Your task to perform on an android device: Open the calendar Image 0: 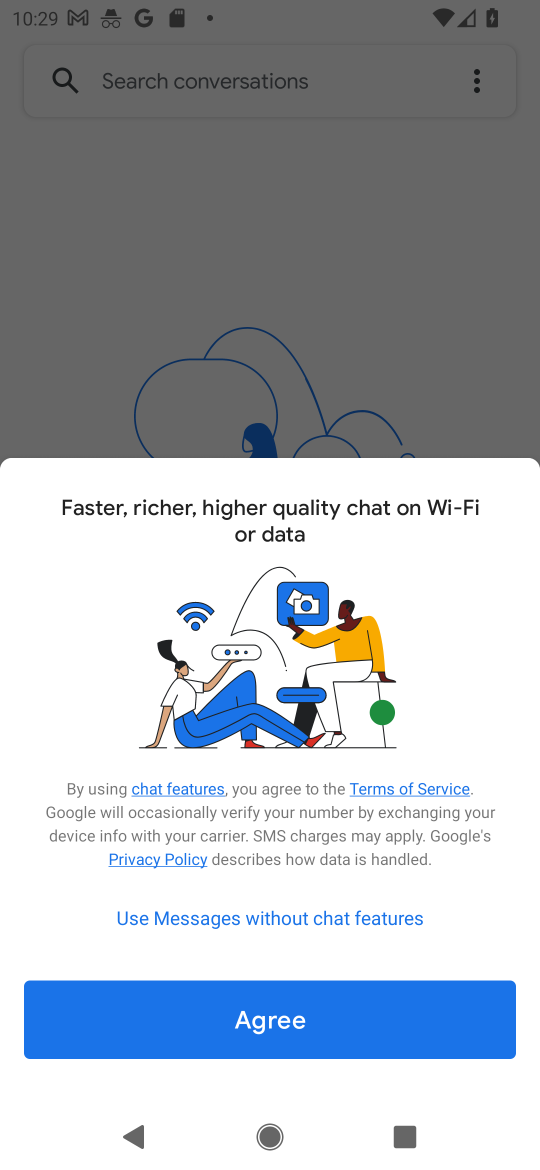
Step 0: press home button
Your task to perform on an android device: Open the calendar Image 1: 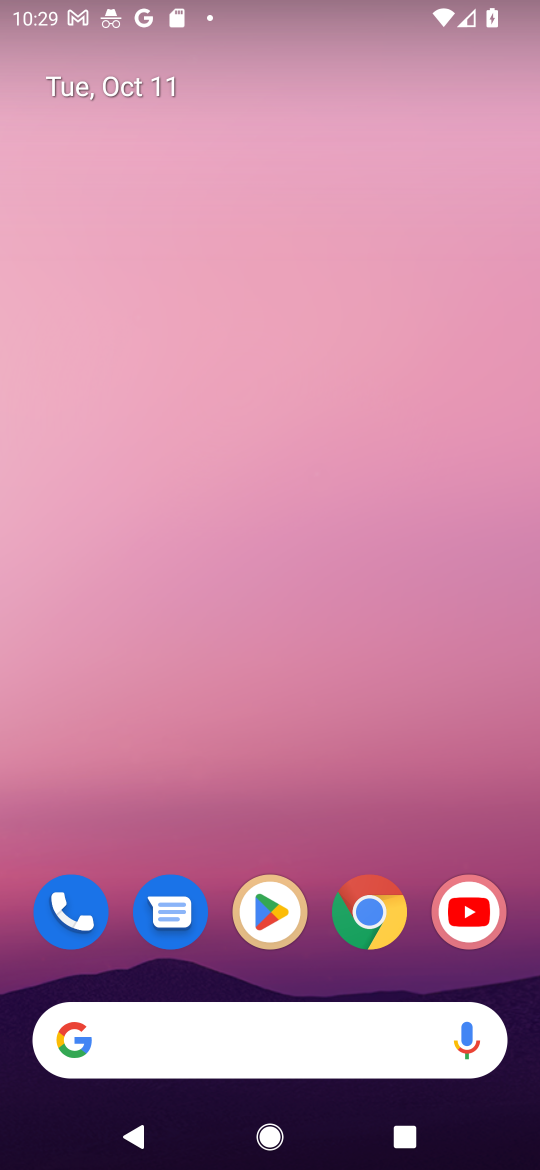
Step 1: drag from (326, 964) to (273, 45)
Your task to perform on an android device: Open the calendar Image 2: 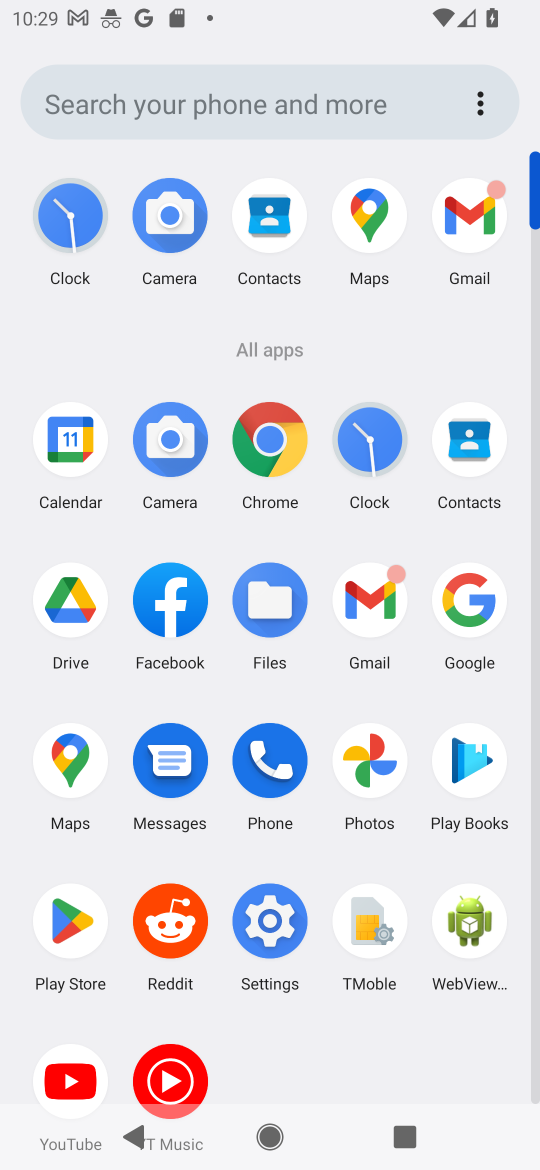
Step 2: click (60, 436)
Your task to perform on an android device: Open the calendar Image 3: 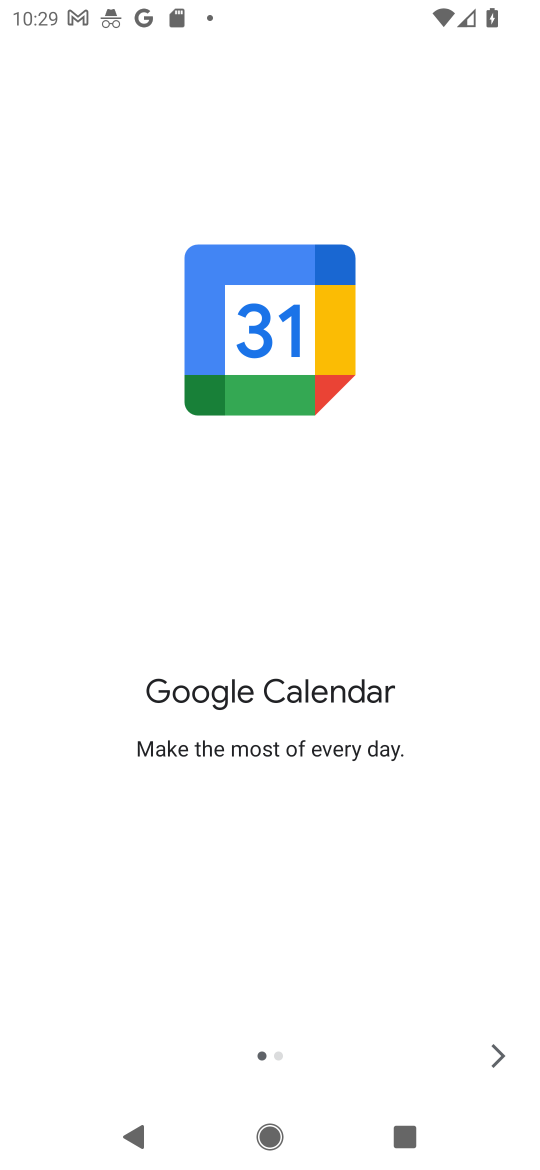
Step 3: click (491, 1053)
Your task to perform on an android device: Open the calendar Image 4: 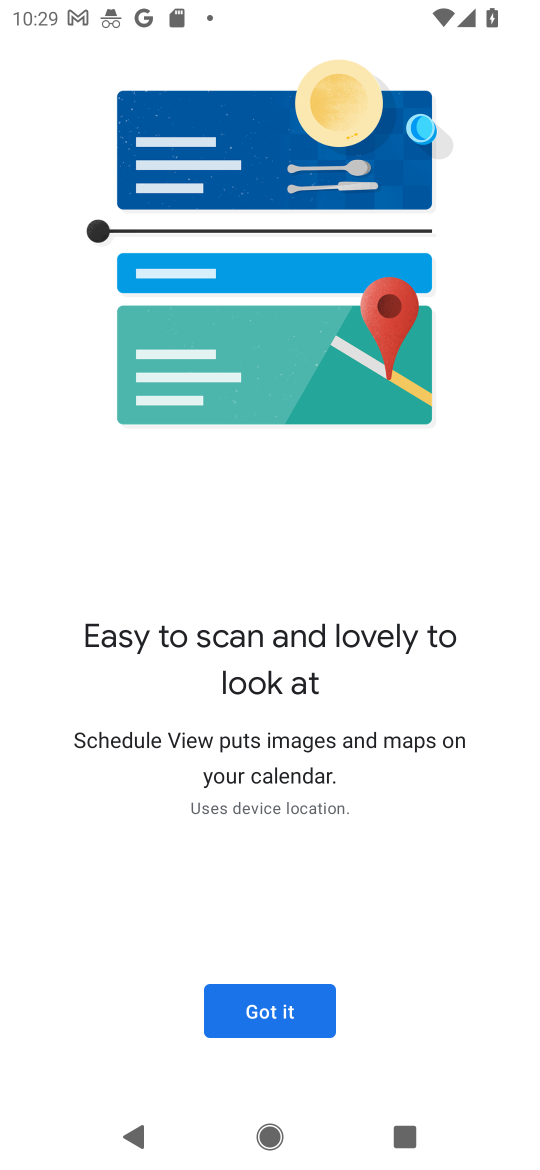
Step 4: click (257, 1002)
Your task to perform on an android device: Open the calendar Image 5: 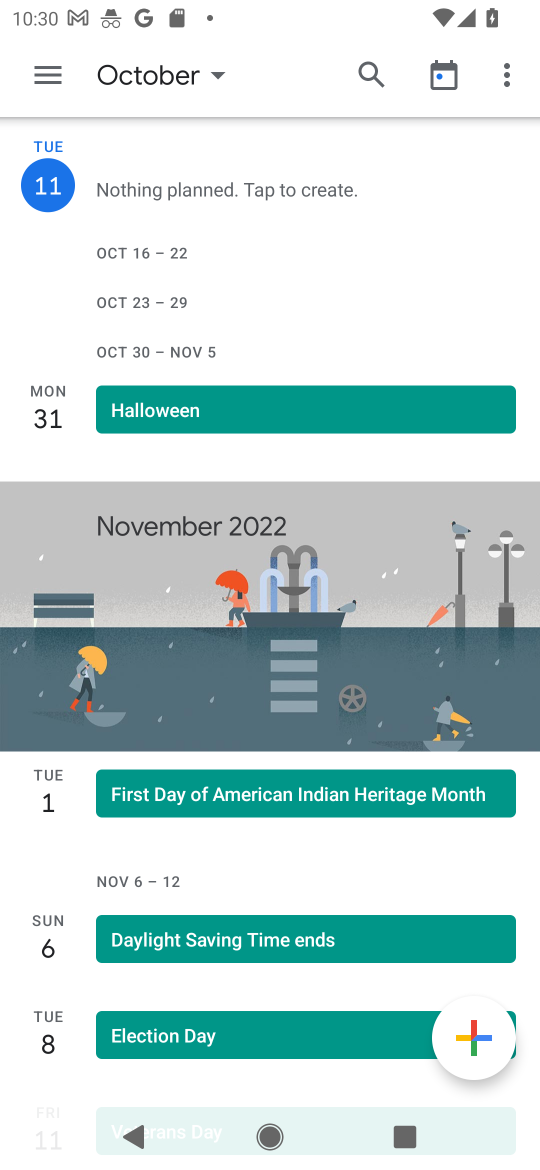
Step 5: task complete